Your task to perform on an android device: turn off wifi Image 0: 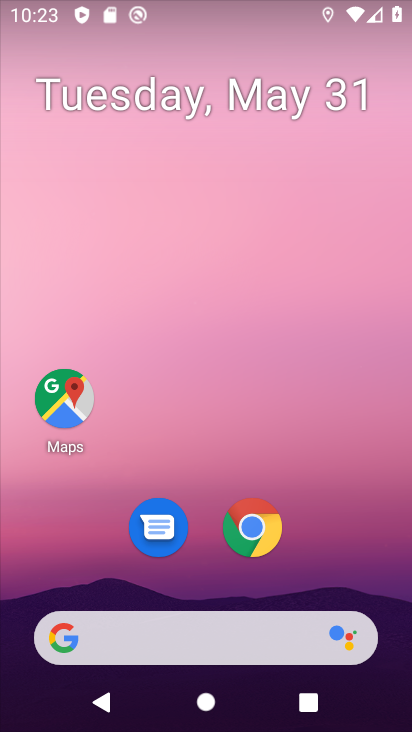
Step 0: drag from (389, 597) to (327, 107)
Your task to perform on an android device: turn off wifi Image 1: 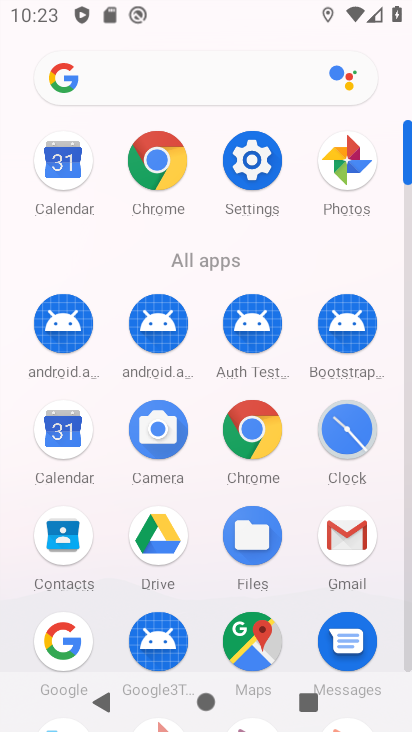
Step 1: click (260, 148)
Your task to perform on an android device: turn off wifi Image 2: 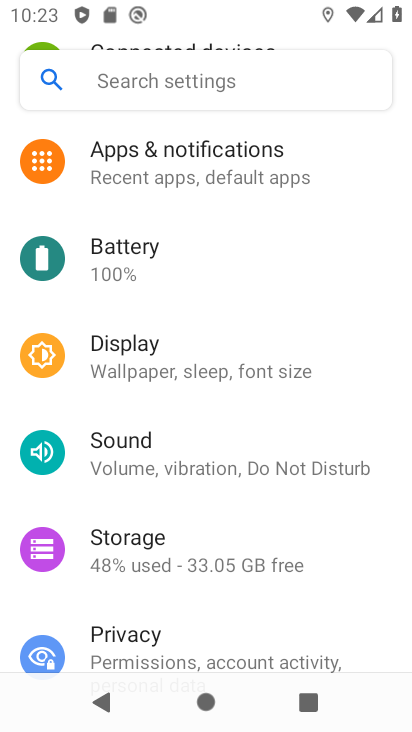
Step 2: drag from (205, 155) to (226, 586)
Your task to perform on an android device: turn off wifi Image 3: 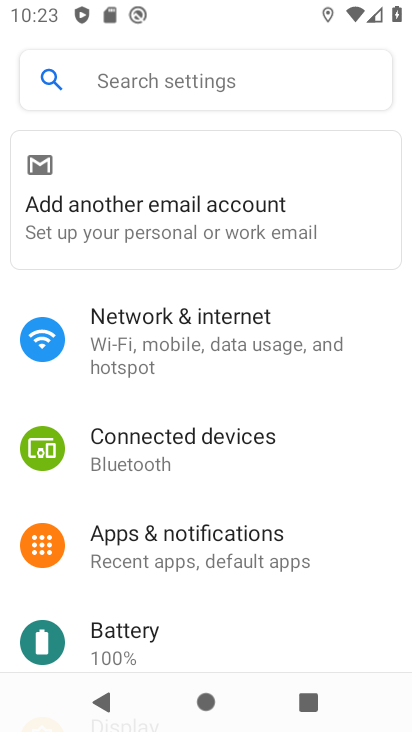
Step 3: click (220, 358)
Your task to perform on an android device: turn off wifi Image 4: 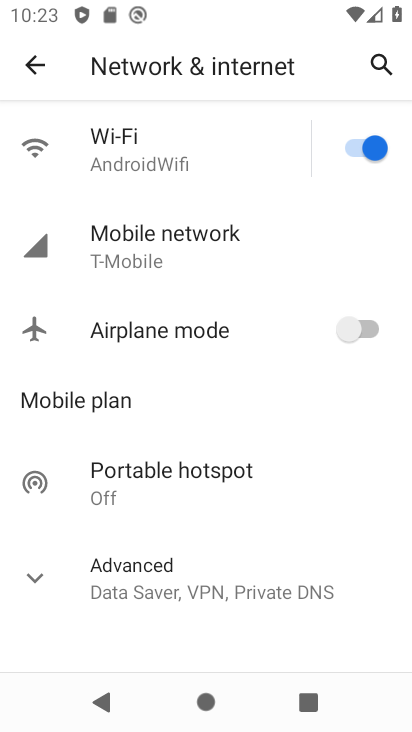
Step 4: click (364, 146)
Your task to perform on an android device: turn off wifi Image 5: 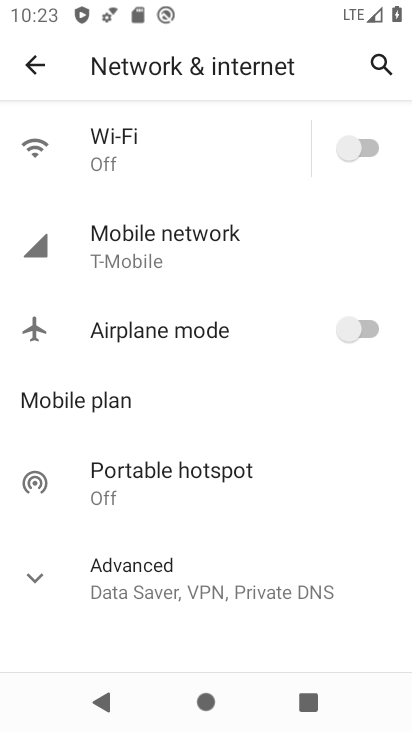
Step 5: task complete